Your task to perform on an android device: turn on wifi Image 0: 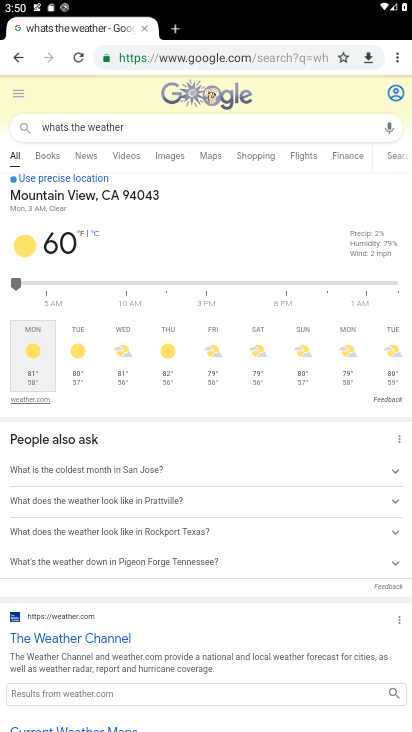
Step 0: press home button
Your task to perform on an android device: turn on wifi Image 1: 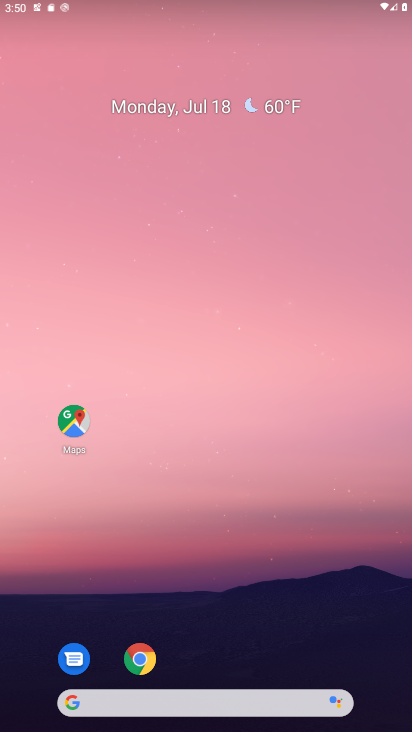
Step 1: drag from (237, 616) to (256, 52)
Your task to perform on an android device: turn on wifi Image 2: 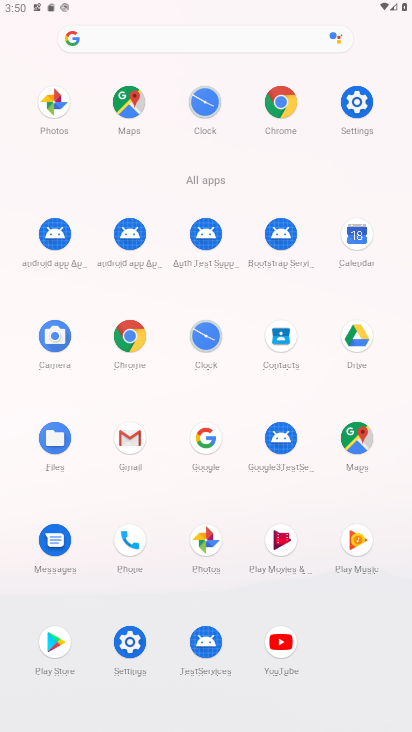
Step 2: click (367, 101)
Your task to perform on an android device: turn on wifi Image 3: 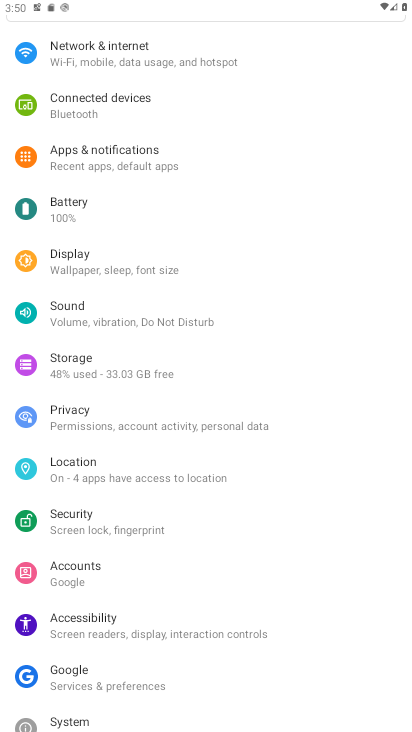
Step 3: click (153, 54)
Your task to perform on an android device: turn on wifi Image 4: 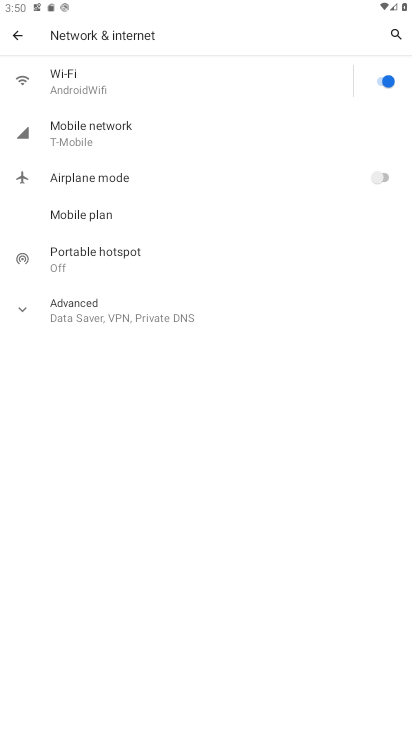
Step 4: task complete